Your task to perform on an android device: When is my next meeting? Image 0: 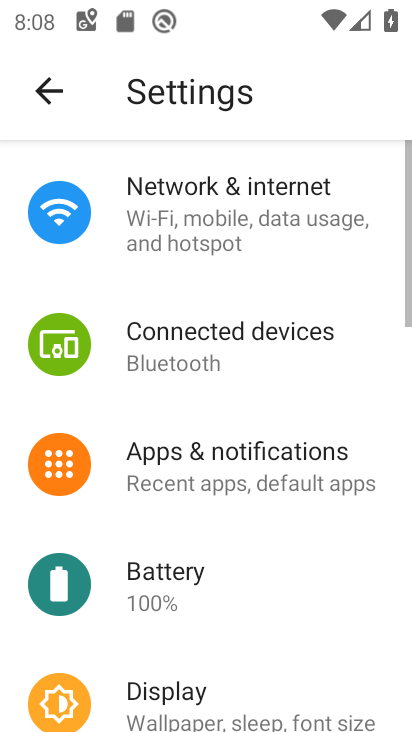
Step 0: press home button
Your task to perform on an android device: When is my next meeting? Image 1: 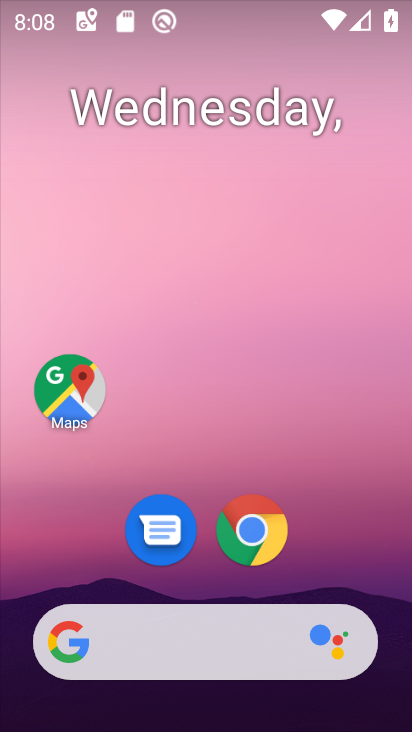
Step 1: drag from (387, 626) to (306, 107)
Your task to perform on an android device: When is my next meeting? Image 2: 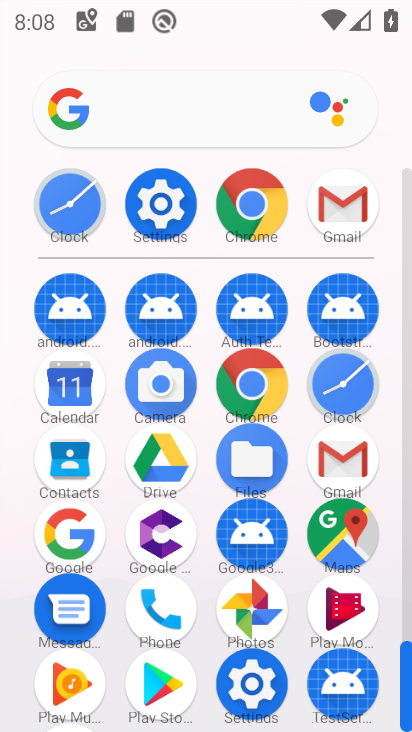
Step 2: click (59, 401)
Your task to perform on an android device: When is my next meeting? Image 3: 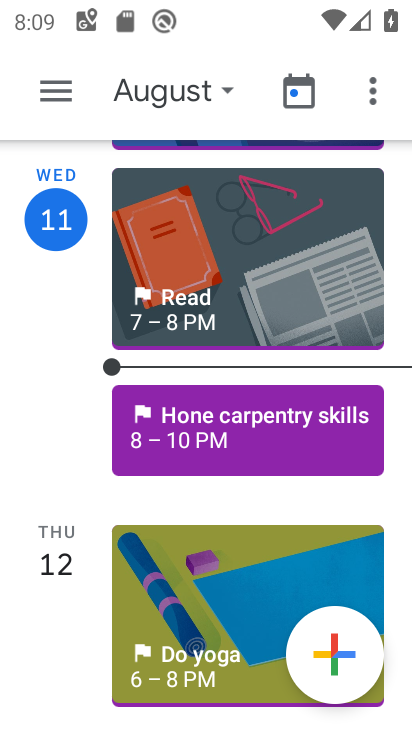
Step 3: task complete